Your task to perform on an android device: refresh tabs in the chrome app Image 0: 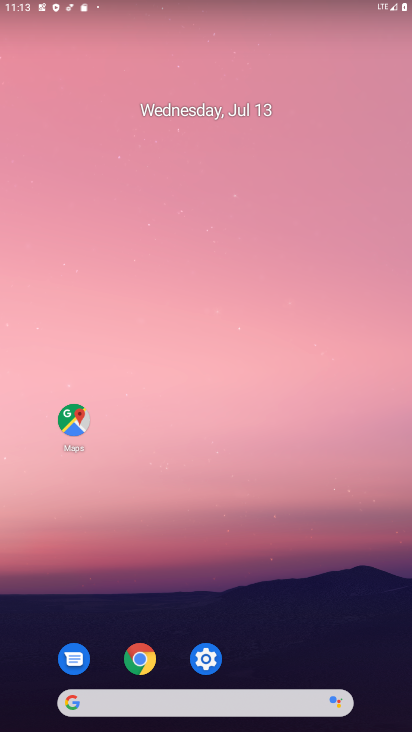
Step 0: drag from (258, 566) to (214, 232)
Your task to perform on an android device: refresh tabs in the chrome app Image 1: 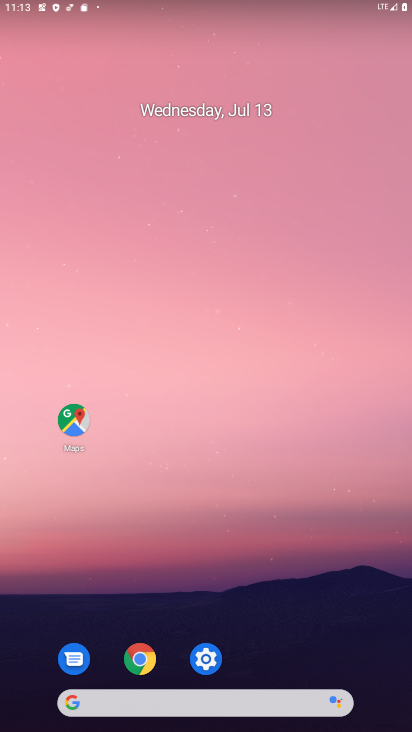
Step 1: drag from (375, 696) to (215, 212)
Your task to perform on an android device: refresh tabs in the chrome app Image 2: 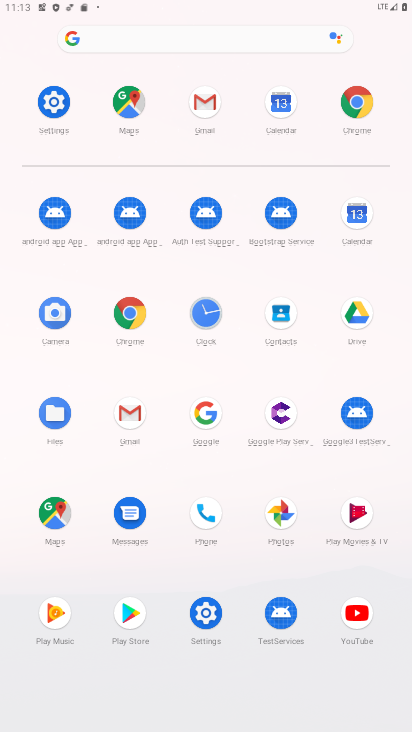
Step 2: drag from (323, 591) to (198, 170)
Your task to perform on an android device: refresh tabs in the chrome app Image 3: 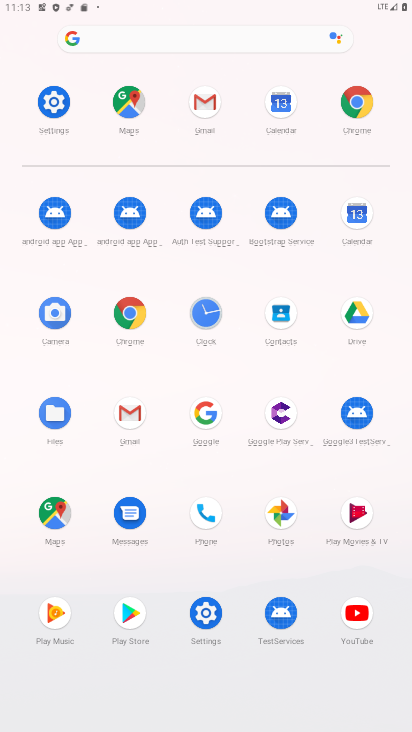
Step 3: click (353, 96)
Your task to perform on an android device: refresh tabs in the chrome app Image 4: 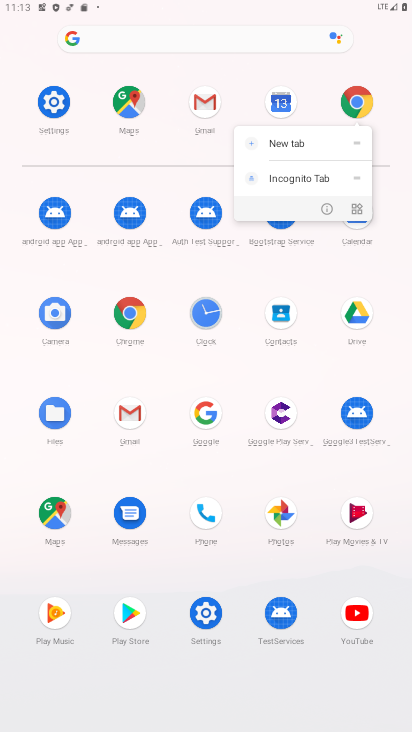
Step 4: click (357, 103)
Your task to perform on an android device: refresh tabs in the chrome app Image 5: 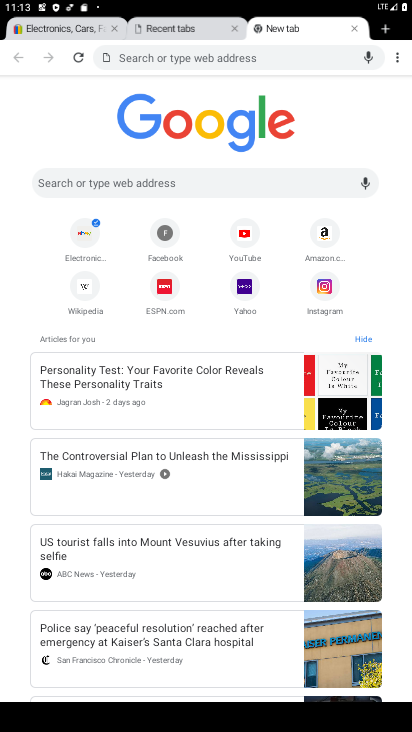
Step 5: drag from (395, 47) to (293, 51)
Your task to perform on an android device: refresh tabs in the chrome app Image 6: 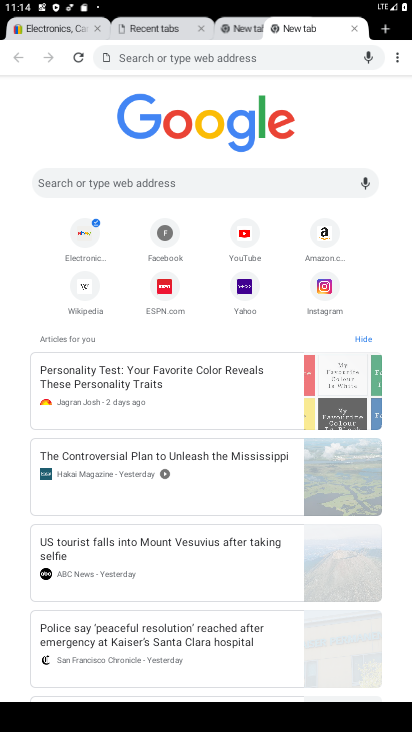
Step 6: click (80, 56)
Your task to perform on an android device: refresh tabs in the chrome app Image 7: 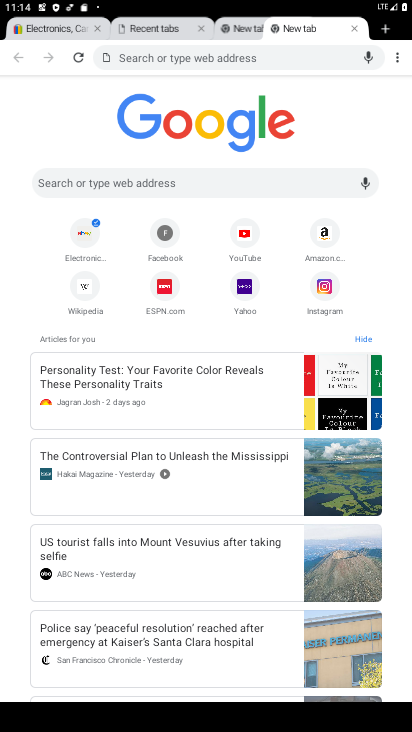
Step 7: click (80, 56)
Your task to perform on an android device: refresh tabs in the chrome app Image 8: 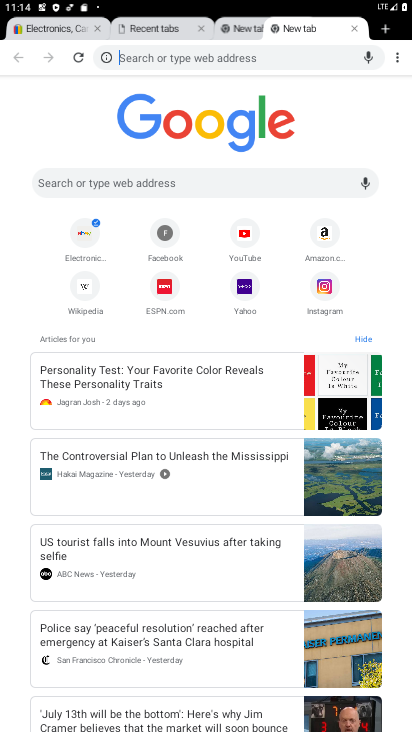
Step 8: task complete